Your task to perform on an android device: stop showing notifications on the lock screen Image 0: 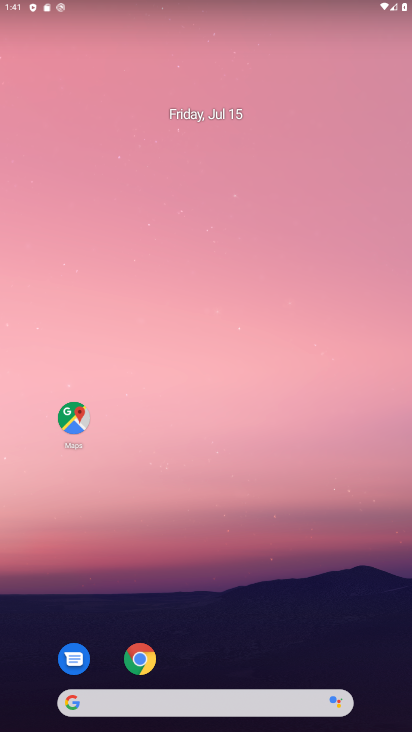
Step 0: drag from (204, 692) to (186, 231)
Your task to perform on an android device: stop showing notifications on the lock screen Image 1: 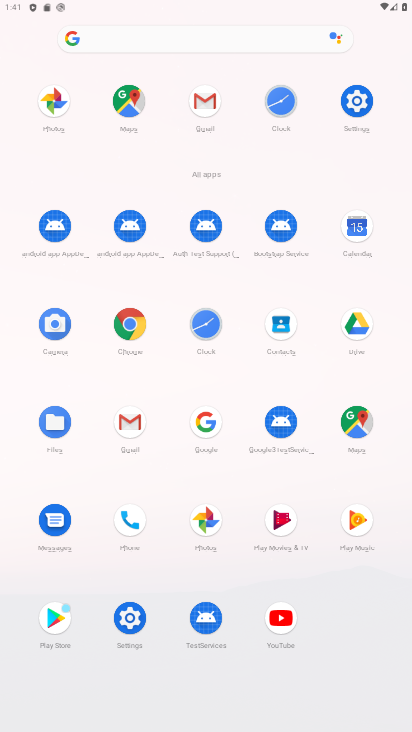
Step 1: click (355, 102)
Your task to perform on an android device: stop showing notifications on the lock screen Image 2: 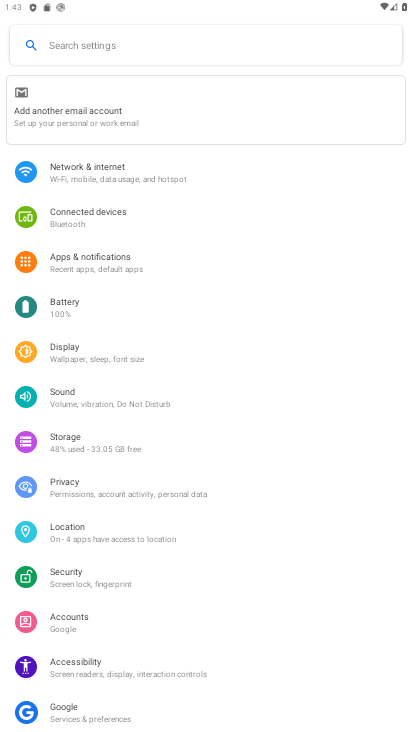
Step 2: click (73, 493)
Your task to perform on an android device: stop showing notifications on the lock screen Image 3: 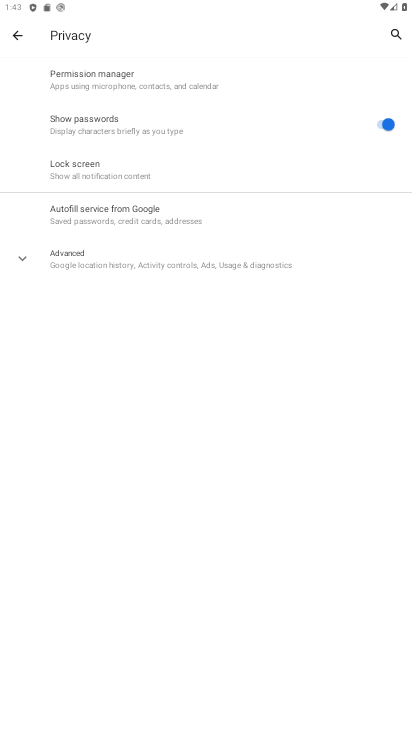
Step 3: click (59, 246)
Your task to perform on an android device: stop showing notifications on the lock screen Image 4: 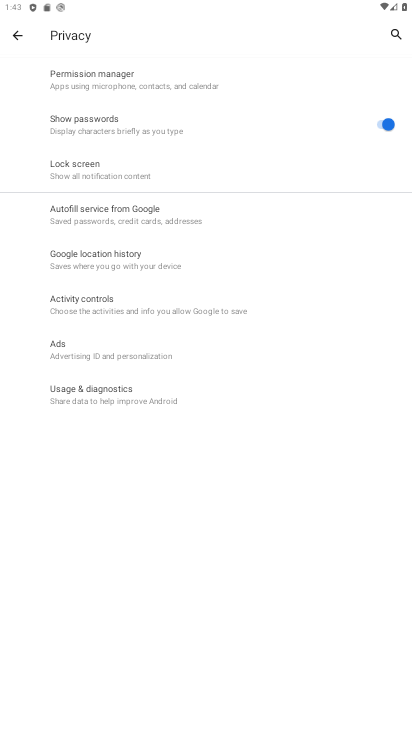
Step 4: click (78, 162)
Your task to perform on an android device: stop showing notifications on the lock screen Image 5: 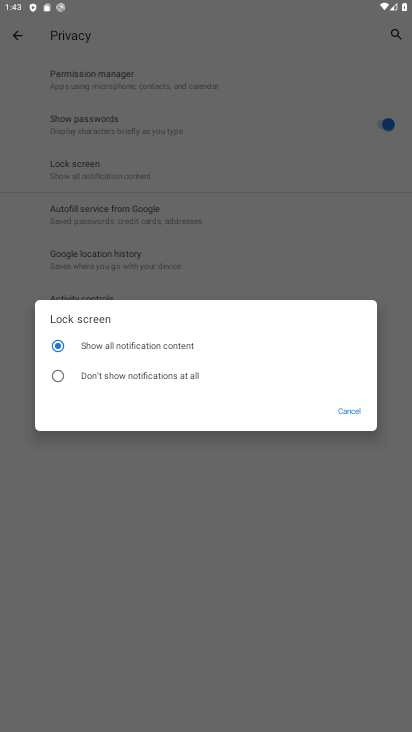
Step 5: click (123, 364)
Your task to perform on an android device: stop showing notifications on the lock screen Image 6: 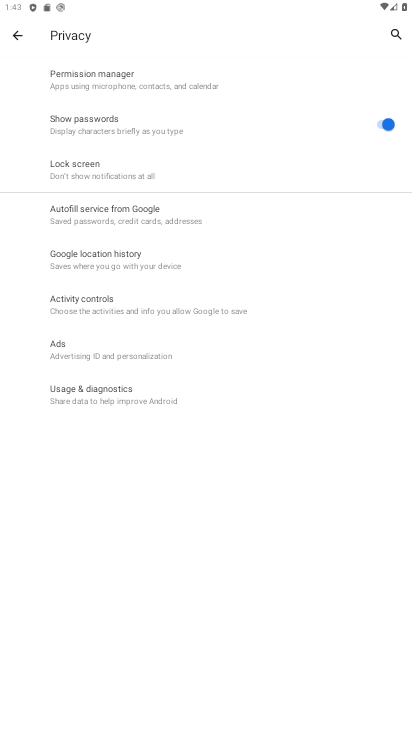
Step 6: task complete